Your task to perform on an android device: turn on javascript in the chrome app Image 0: 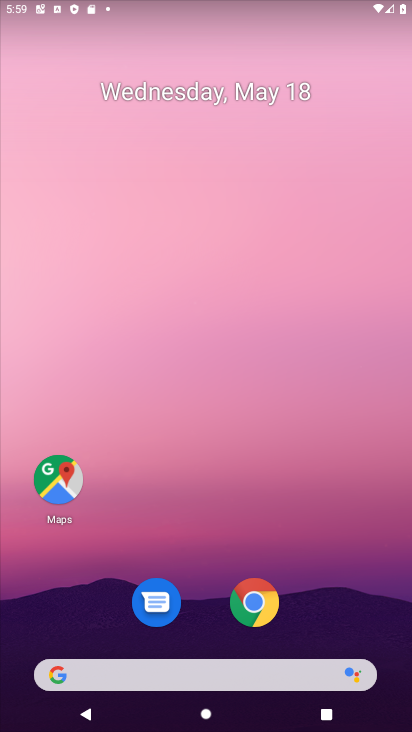
Step 0: press home button
Your task to perform on an android device: turn on javascript in the chrome app Image 1: 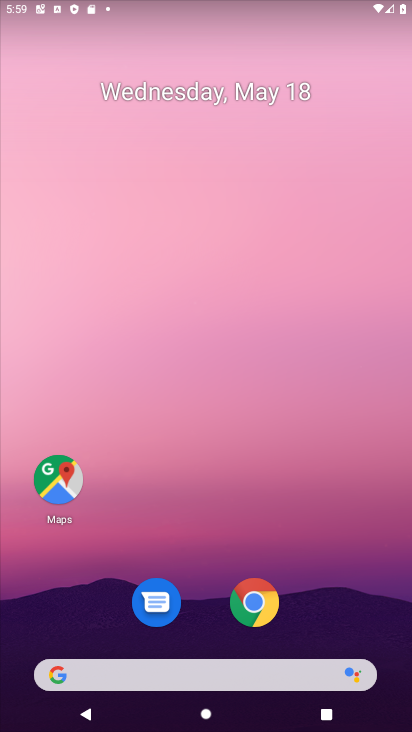
Step 1: drag from (252, 655) to (279, 8)
Your task to perform on an android device: turn on javascript in the chrome app Image 2: 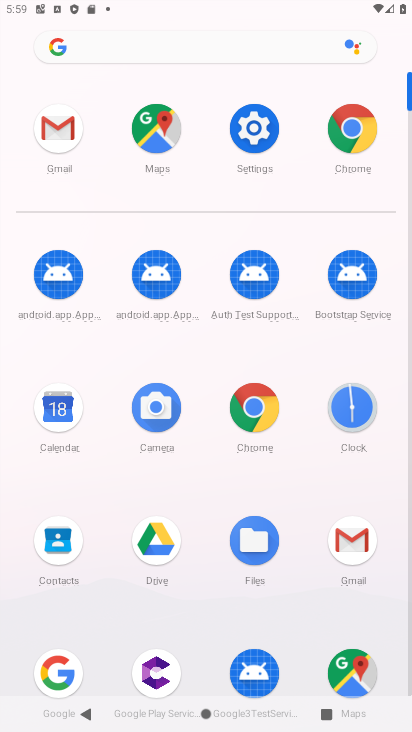
Step 2: click (248, 419)
Your task to perform on an android device: turn on javascript in the chrome app Image 3: 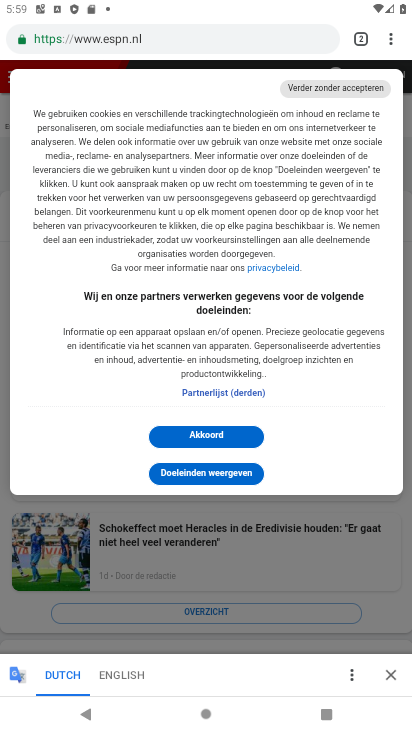
Step 3: click (393, 38)
Your task to perform on an android device: turn on javascript in the chrome app Image 4: 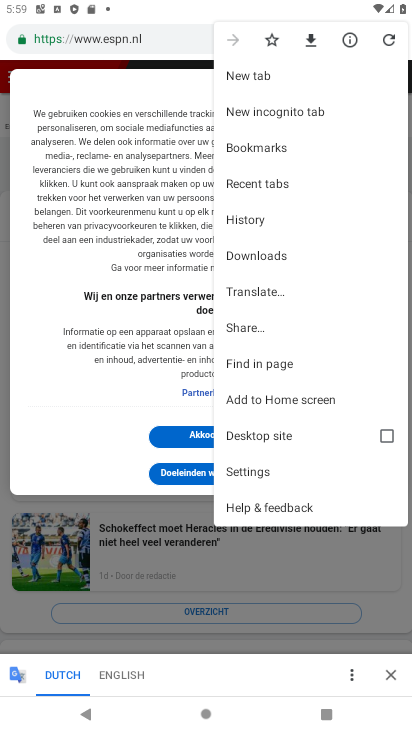
Step 4: click (265, 476)
Your task to perform on an android device: turn on javascript in the chrome app Image 5: 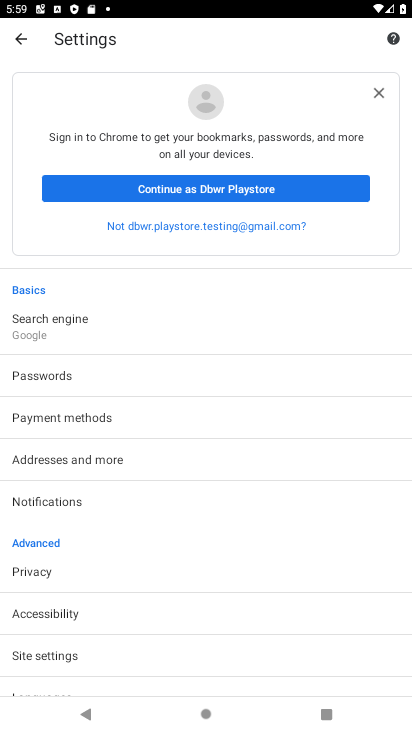
Step 5: drag from (159, 663) to (154, 260)
Your task to perform on an android device: turn on javascript in the chrome app Image 6: 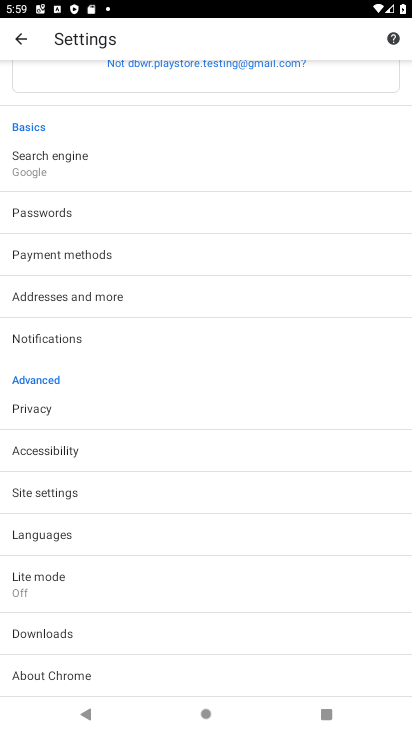
Step 6: click (83, 497)
Your task to perform on an android device: turn on javascript in the chrome app Image 7: 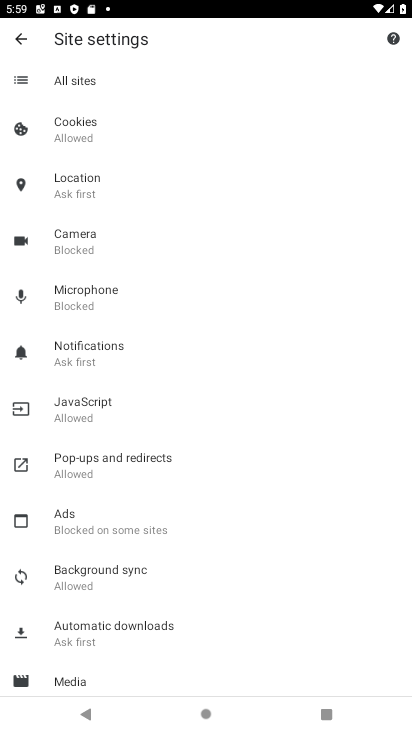
Step 7: click (102, 406)
Your task to perform on an android device: turn on javascript in the chrome app Image 8: 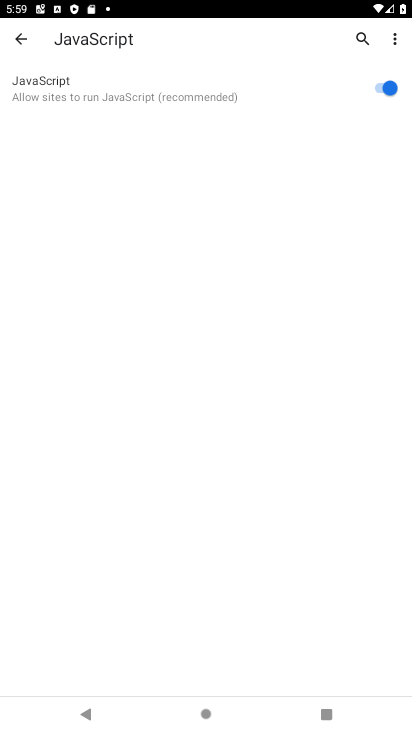
Step 8: task complete